Your task to perform on an android device: set an alarm Image 0: 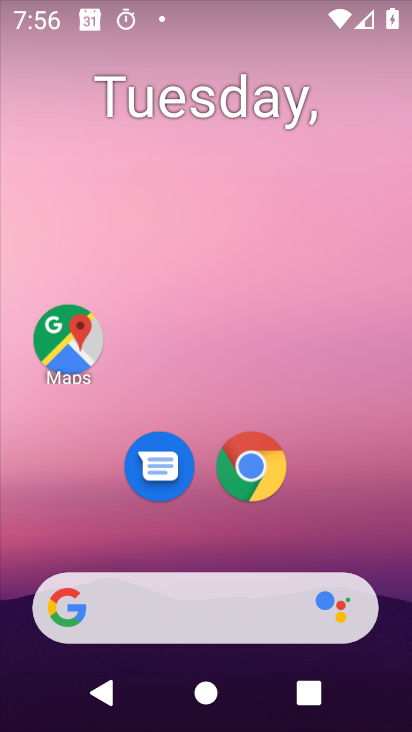
Step 0: drag from (14, 514) to (163, 242)
Your task to perform on an android device: set an alarm Image 1: 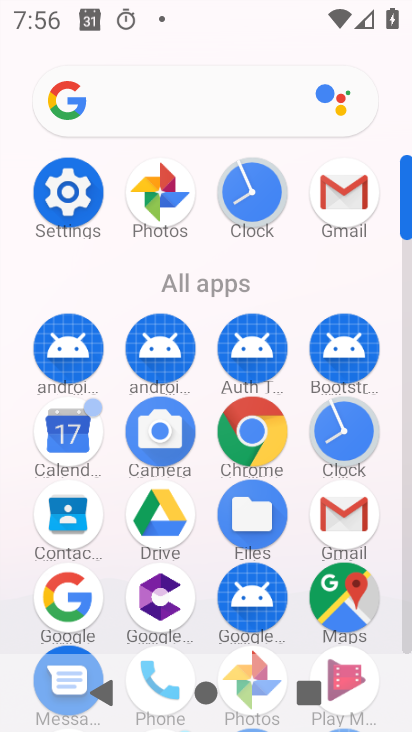
Step 1: click (324, 427)
Your task to perform on an android device: set an alarm Image 2: 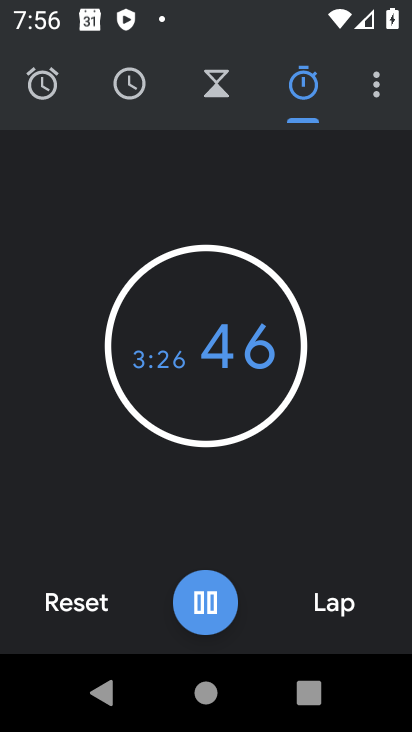
Step 2: click (30, 95)
Your task to perform on an android device: set an alarm Image 3: 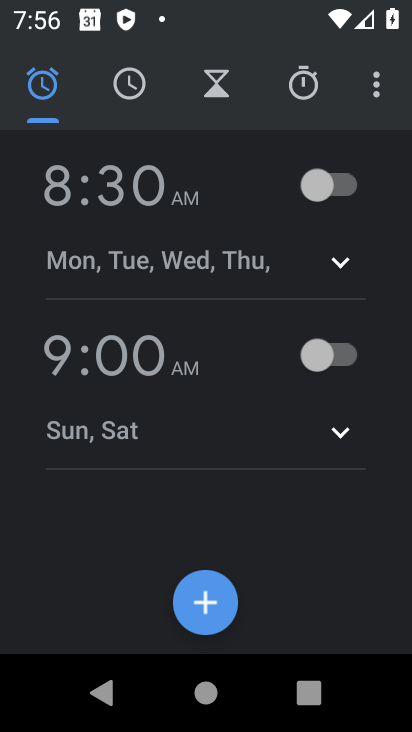
Step 3: click (199, 600)
Your task to perform on an android device: set an alarm Image 4: 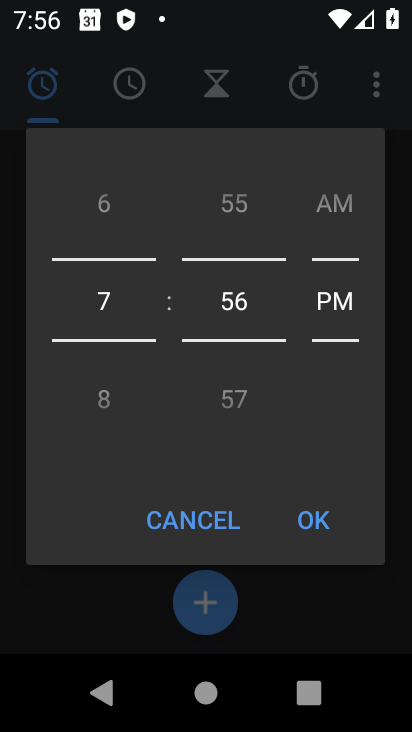
Step 4: click (324, 517)
Your task to perform on an android device: set an alarm Image 5: 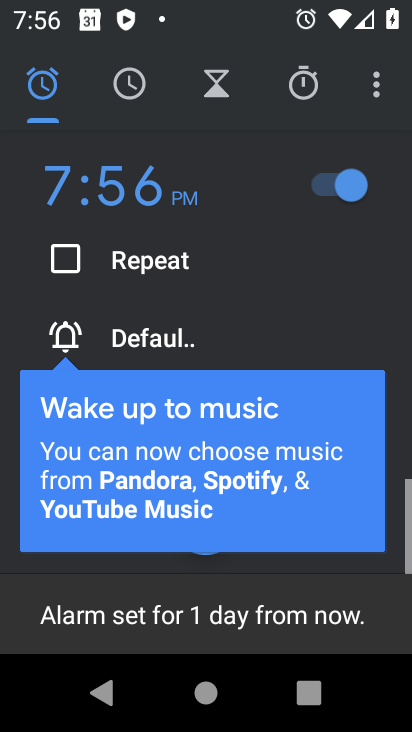
Step 5: task complete